Your task to perform on an android device: delete a single message in the gmail app Image 0: 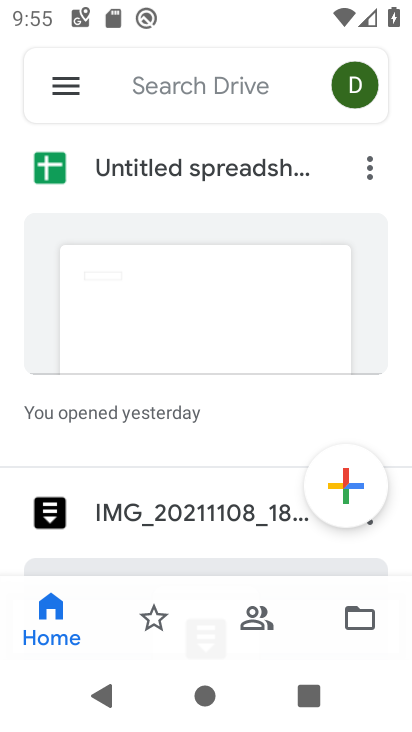
Step 0: press home button
Your task to perform on an android device: delete a single message in the gmail app Image 1: 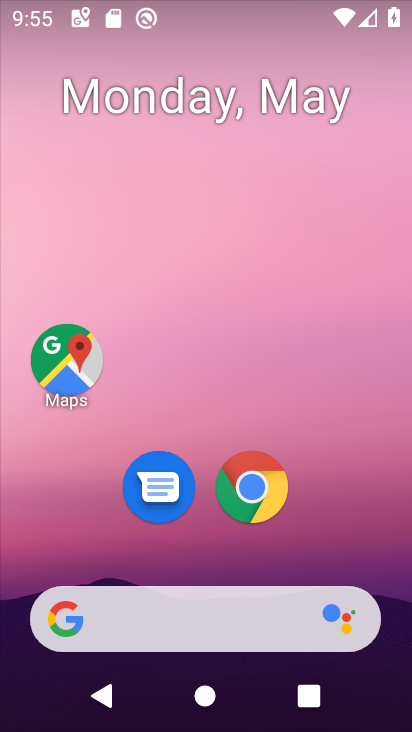
Step 1: drag from (347, 574) to (235, 727)
Your task to perform on an android device: delete a single message in the gmail app Image 2: 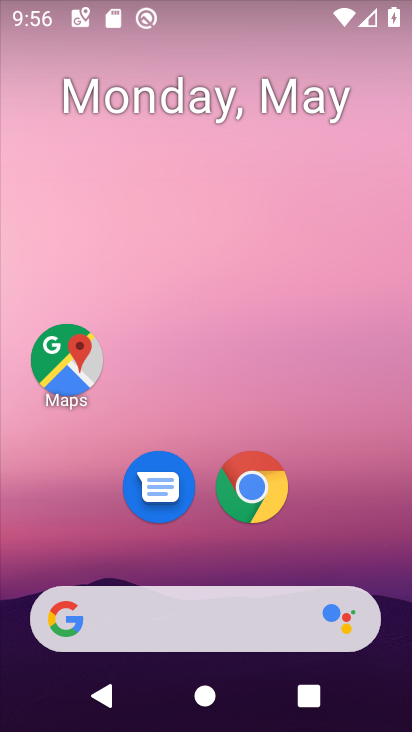
Step 2: drag from (324, 481) to (309, 80)
Your task to perform on an android device: delete a single message in the gmail app Image 3: 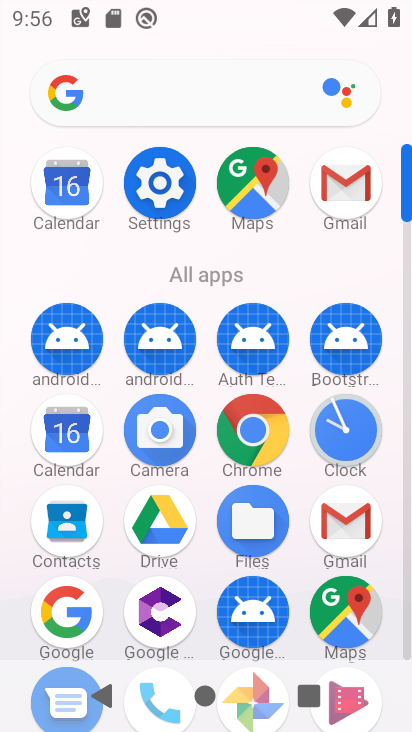
Step 3: click (340, 521)
Your task to perform on an android device: delete a single message in the gmail app Image 4: 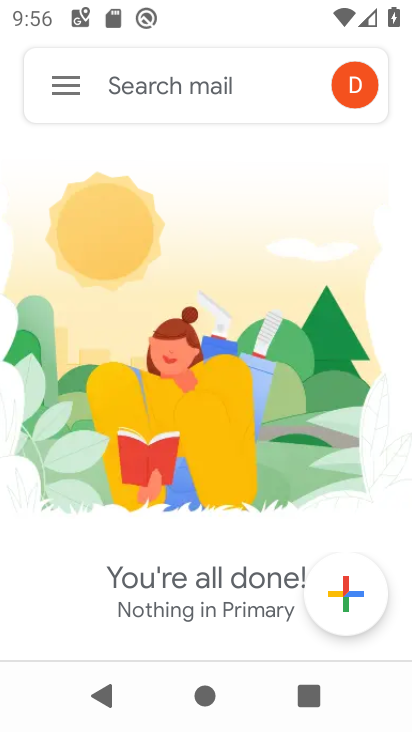
Step 4: click (70, 77)
Your task to perform on an android device: delete a single message in the gmail app Image 5: 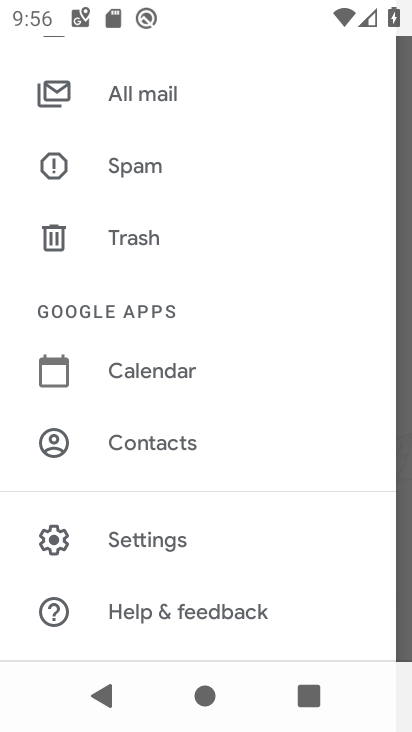
Step 5: click (159, 88)
Your task to perform on an android device: delete a single message in the gmail app Image 6: 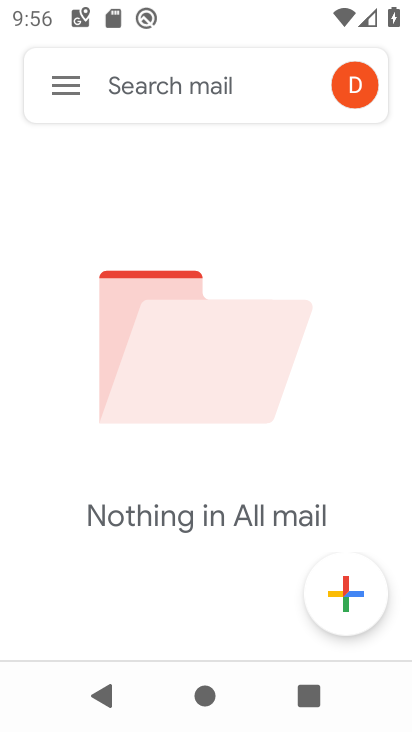
Step 6: task complete